Your task to perform on an android device: Open the calendar app, open the side menu, and click the "Day" option Image 0: 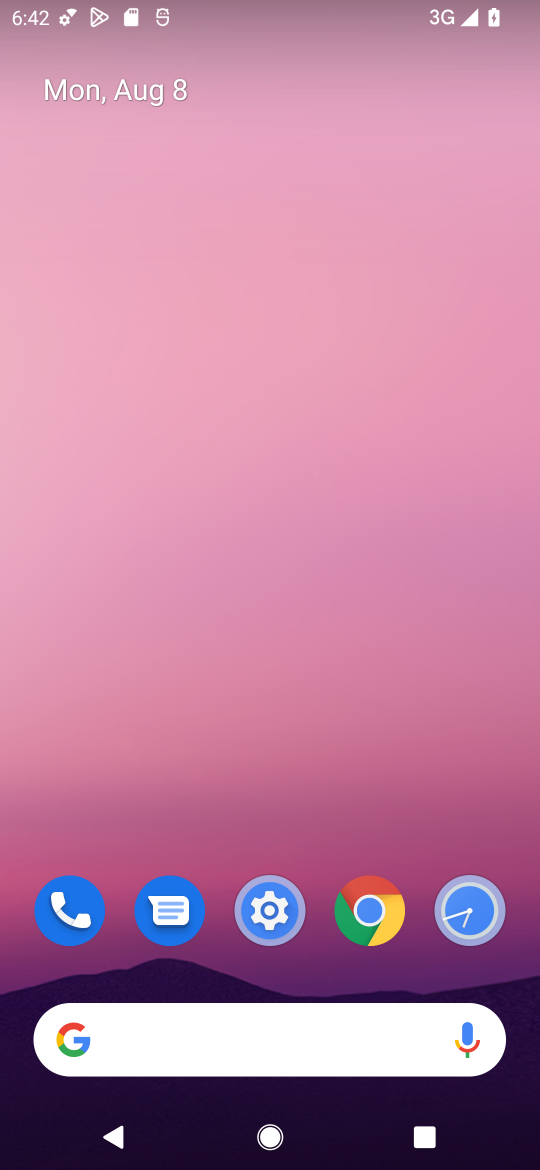
Step 0: drag from (229, 810) to (115, 149)
Your task to perform on an android device: Open the calendar app, open the side menu, and click the "Day" option Image 1: 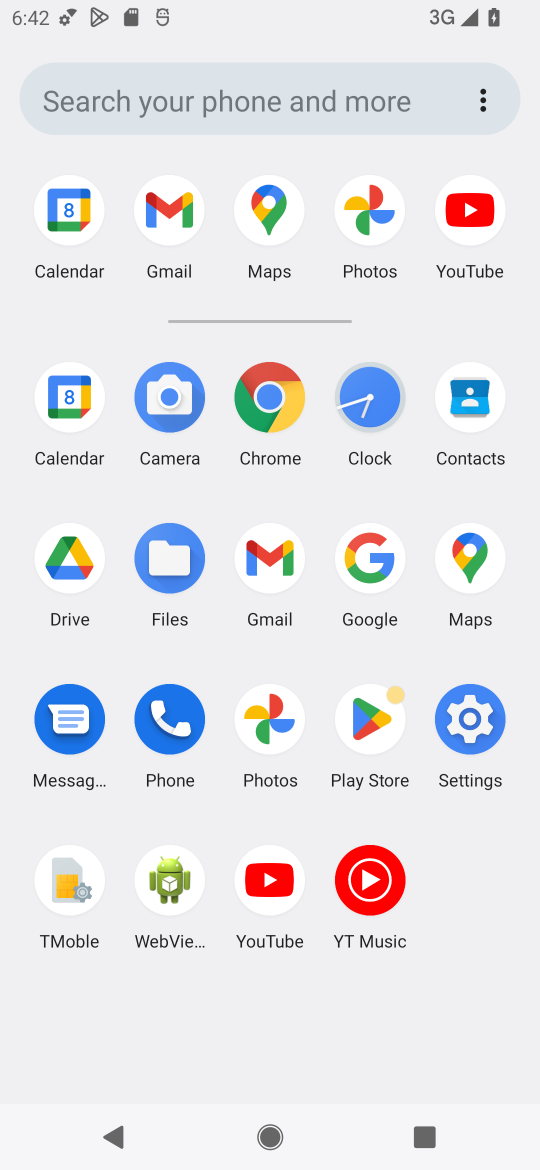
Step 1: click (50, 211)
Your task to perform on an android device: Open the calendar app, open the side menu, and click the "Day" option Image 2: 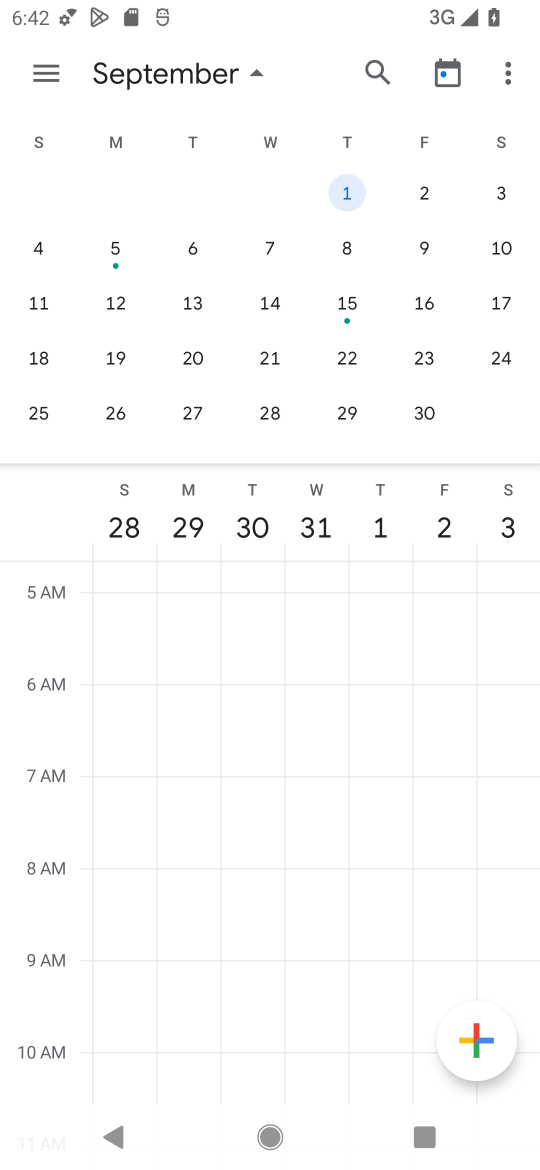
Step 2: click (41, 77)
Your task to perform on an android device: Open the calendar app, open the side menu, and click the "Day" option Image 3: 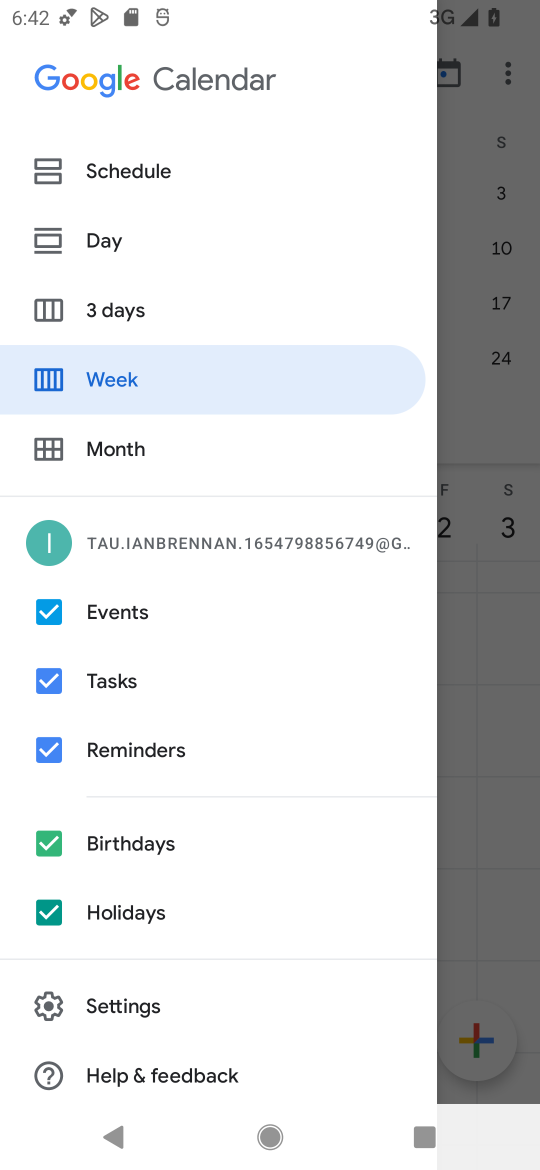
Step 3: click (120, 235)
Your task to perform on an android device: Open the calendar app, open the side menu, and click the "Day" option Image 4: 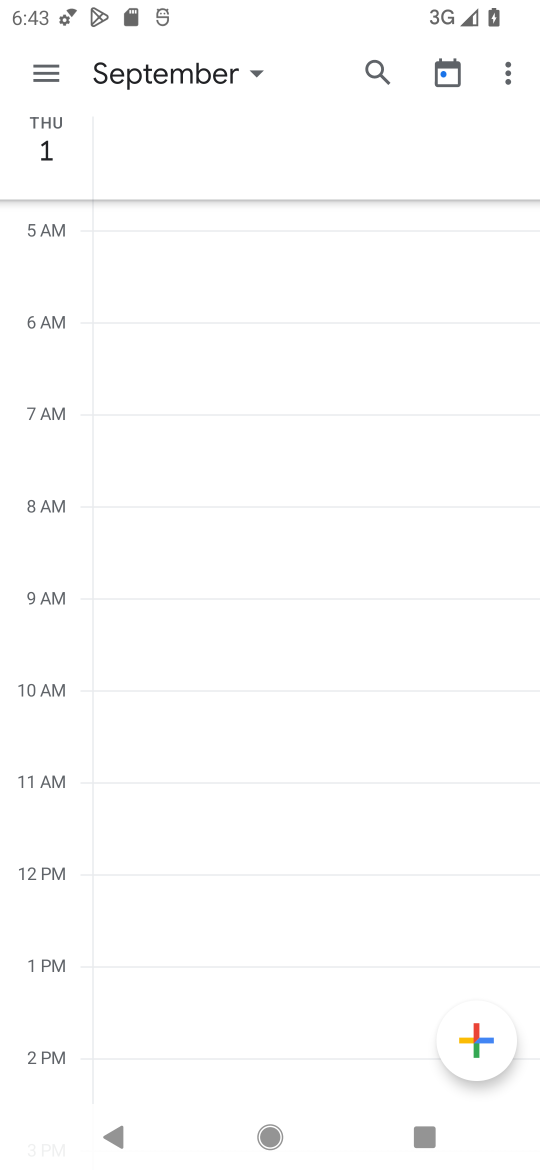
Step 4: task complete